Your task to perform on an android device: read, delete, or share a saved page in the chrome app Image 0: 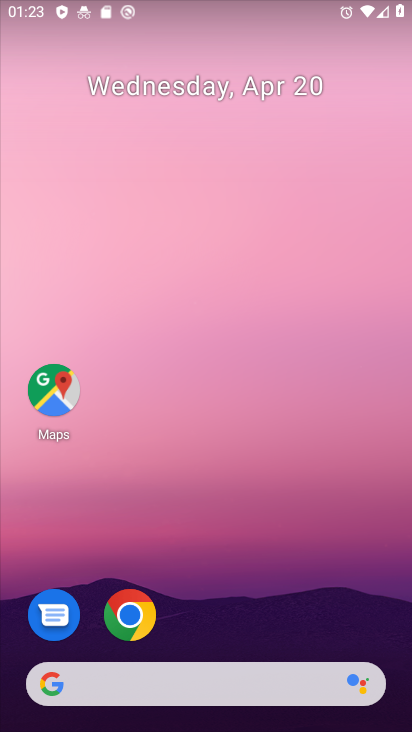
Step 0: click (139, 609)
Your task to perform on an android device: read, delete, or share a saved page in the chrome app Image 1: 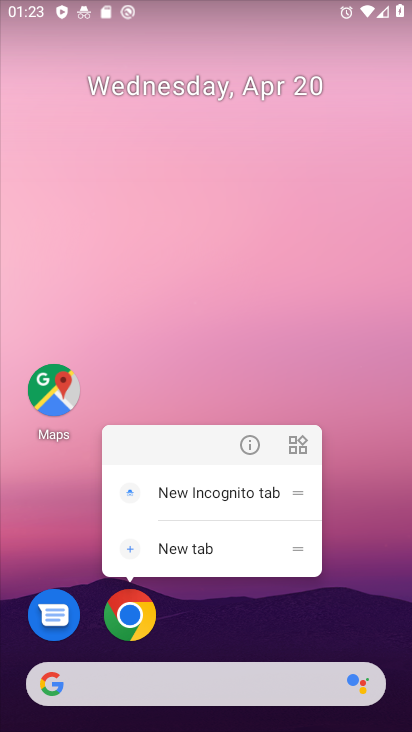
Step 1: click (139, 609)
Your task to perform on an android device: read, delete, or share a saved page in the chrome app Image 2: 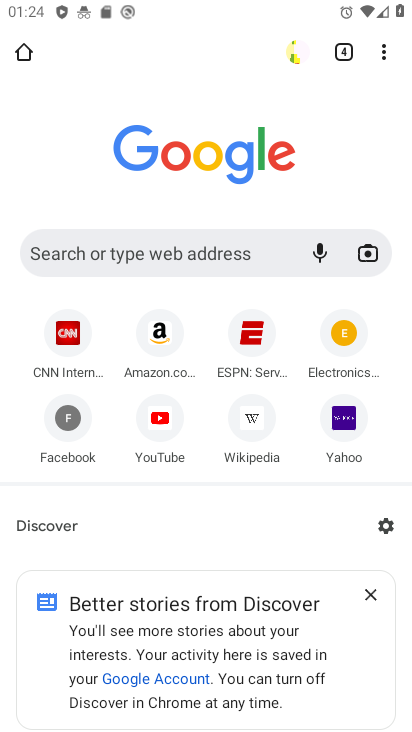
Step 2: click (381, 49)
Your task to perform on an android device: read, delete, or share a saved page in the chrome app Image 3: 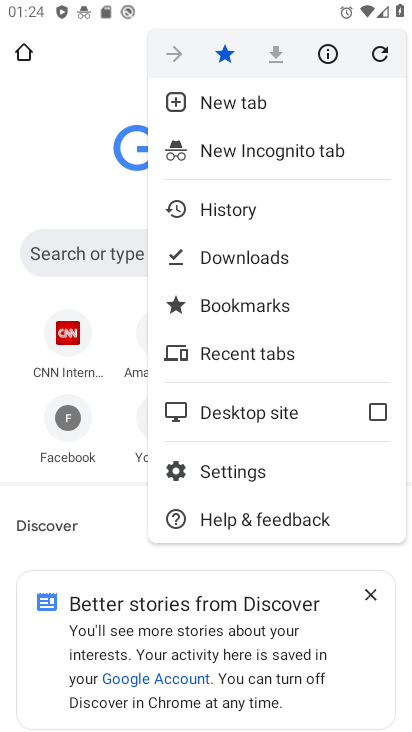
Step 3: click (225, 255)
Your task to perform on an android device: read, delete, or share a saved page in the chrome app Image 4: 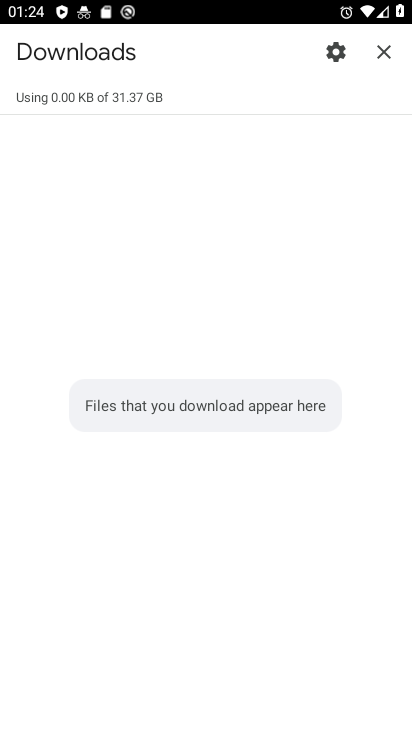
Step 4: task complete